Your task to perform on an android device: turn off translation in the chrome app Image 0: 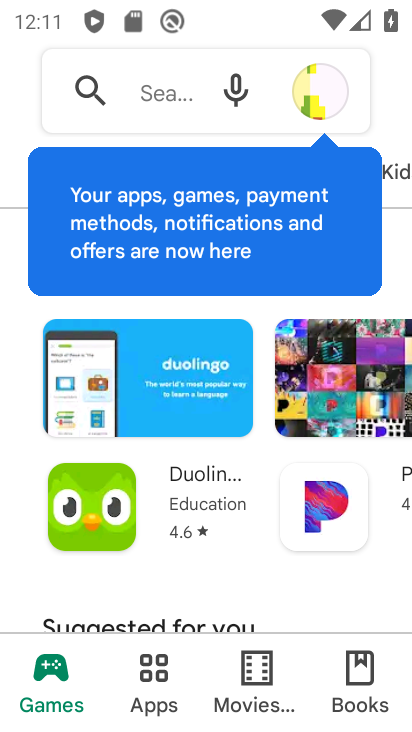
Step 0: press home button
Your task to perform on an android device: turn off translation in the chrome app Image 1: 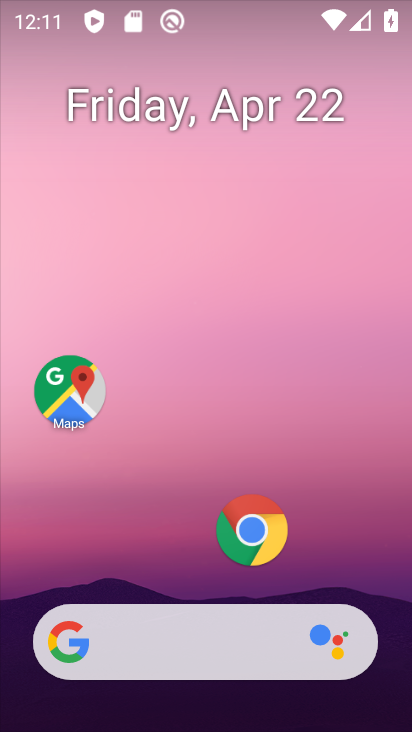
Step 1: click (250, 532)
Your task to perform on an android device: turn off translation in the chrome app Image 2: 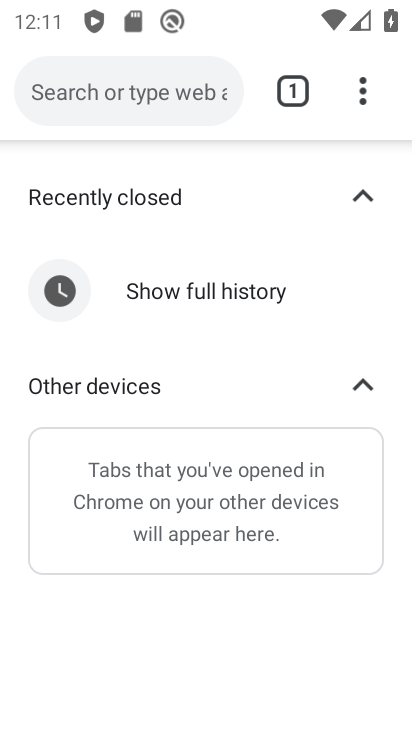
Step 2: drag from (361, 95) to (160, 539)
Your task to perform on an android device: turn off translation in the chrome app Image 3: 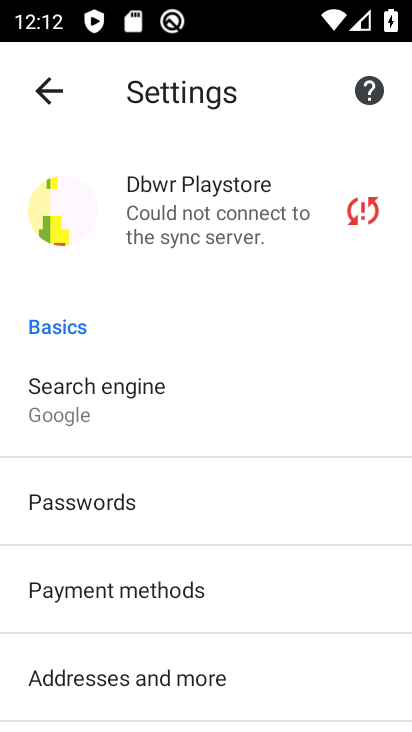
Step 3: drag from (170, 626) to (148, 304)
Your task to perform on an android device: turn off translation in the chrome app Image 4: 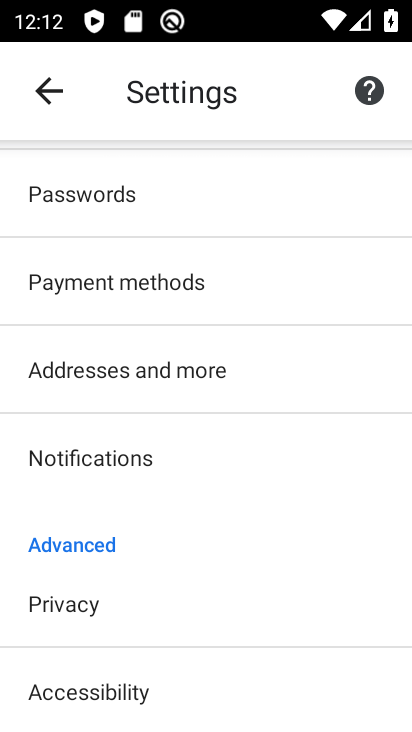
Step 4: drag from (185, 690) to (216, 186)
Your task to perform on an android device: turn off translation in the chrome app Image 5: 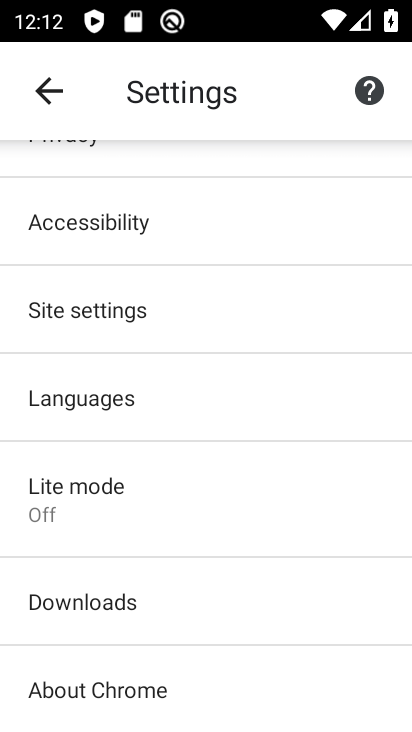
Step 5: click (82, 398)
Your task to perform on an android device: turn off translation in the chrome app Image 6: 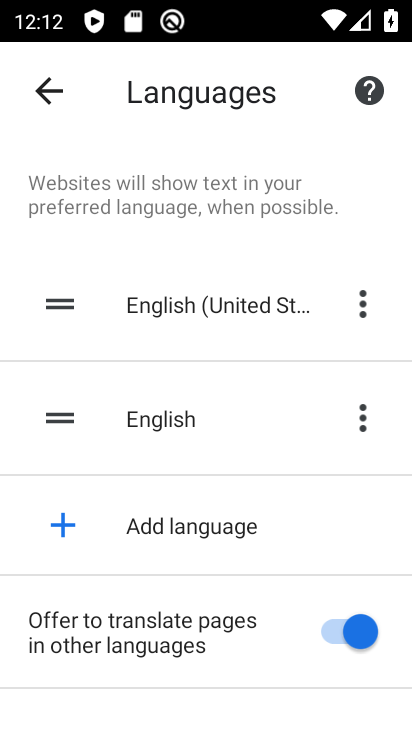
Step 6: click (334, 633)
Your task to perform on an android device: turn off translation in the chrome app Image 7: 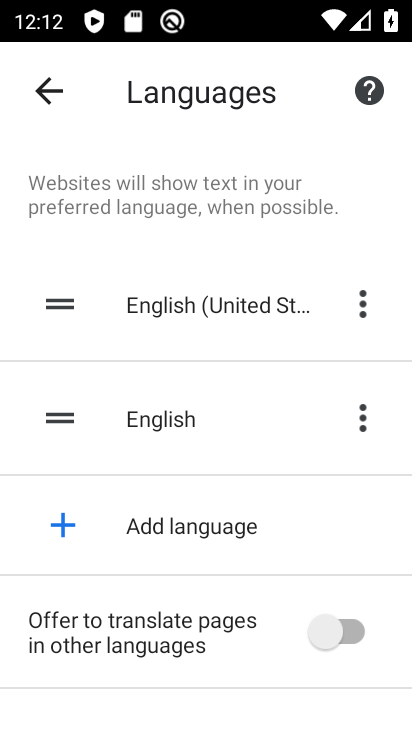
Step 7: task complete